Your task to perform on an android device: open a bookmark in the chrome app Image 0: 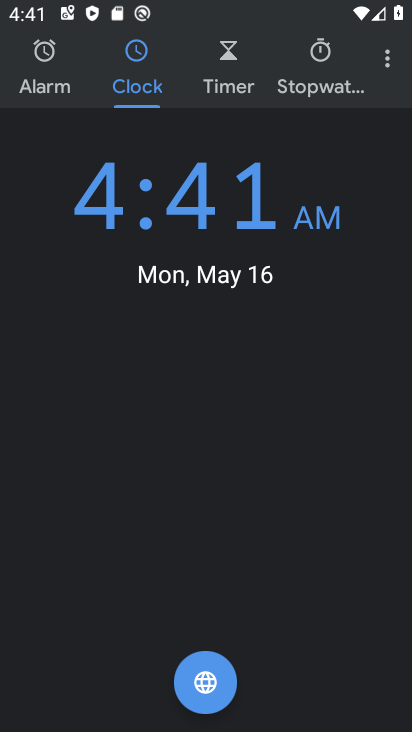
Step 0: click (56, 381)
Your task to perform on an android device: open a bookmark in the chrome app Image 1: 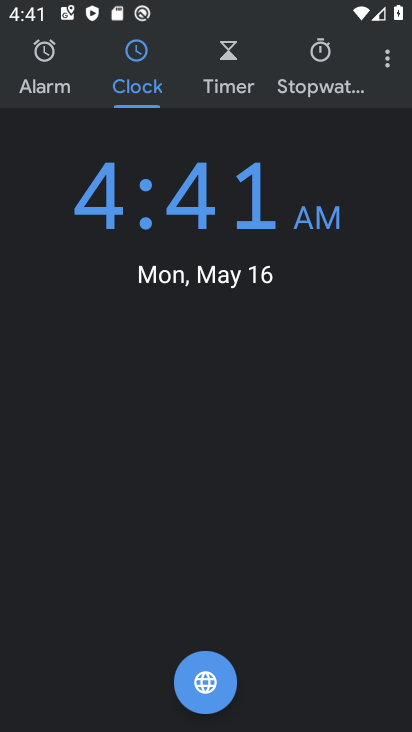
Step 1: press home button
Your task to perform on an android device: open a bookmark in the chrome app Image 2: 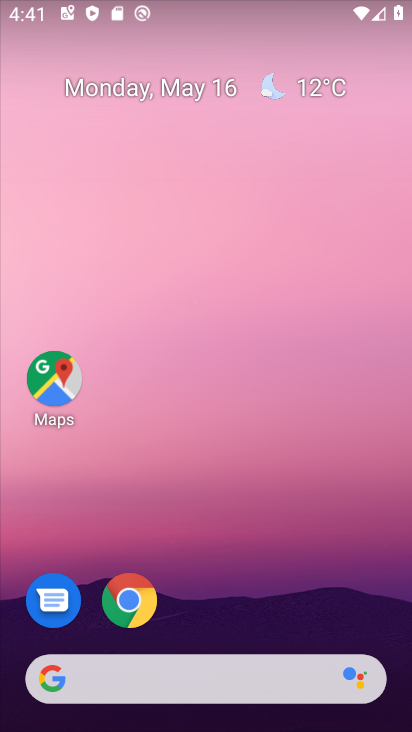
Step 2: click (59, 377)
Your task to perform on an android device: open a bookmark in the chrome app Image 3: 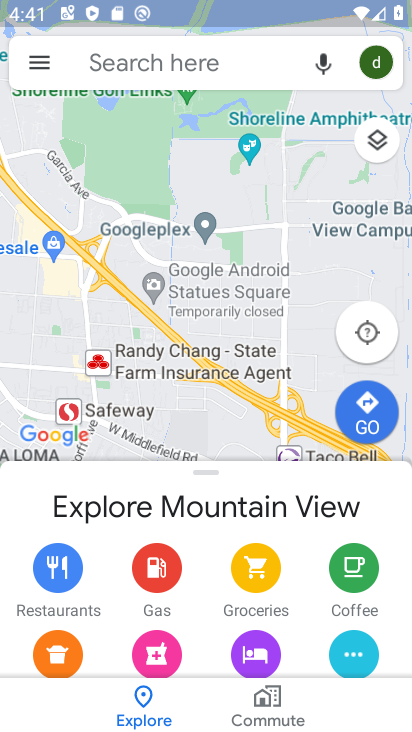
Step 3: press home button
Your task to perform on an android device: open a bookmark in the chrome app Image 4: 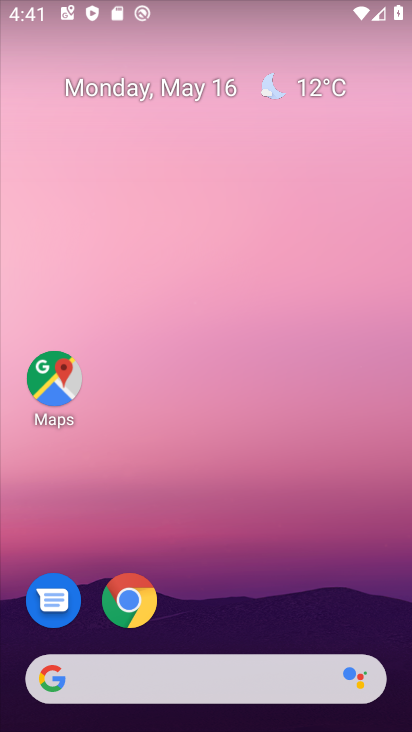
Step 4: click (137, 600)
Your task to perform on an android device: open a bookmark in the chrome app Image 5: 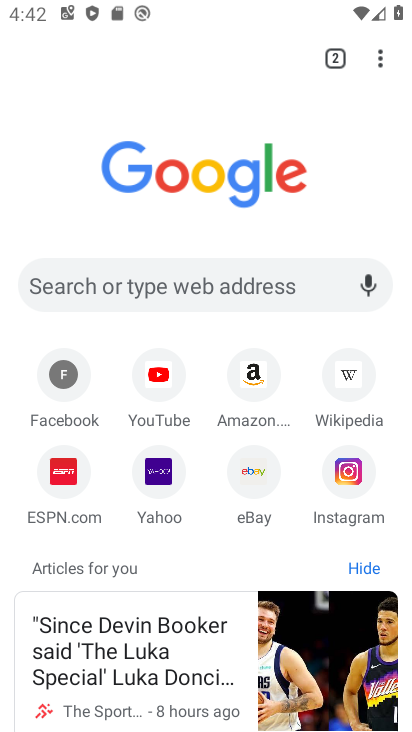
Step 5: click (381, 66)
Your task to perform on an android device: open a bookmark in the chrome app Image 6: 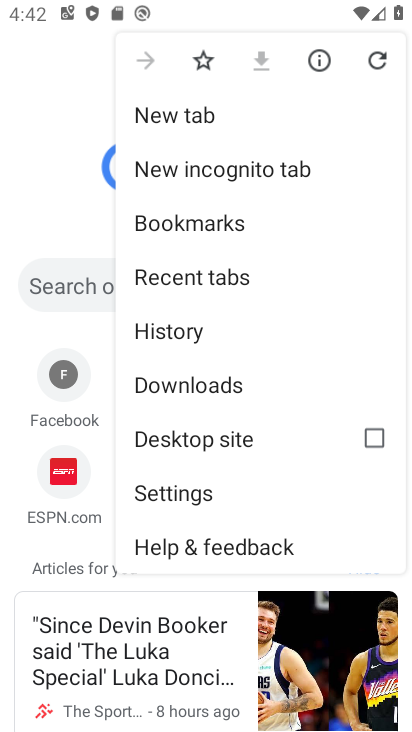
Step 6: click (191, 229)
Your task to perform on an android device: open a bookmark in the chrome app Image 7: 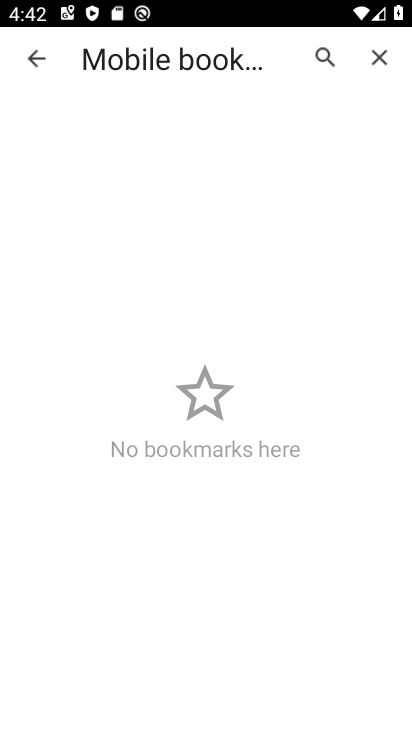
Step 7: task complete